Your task to perform on an android device: turn on improve location accuracy Image 0: 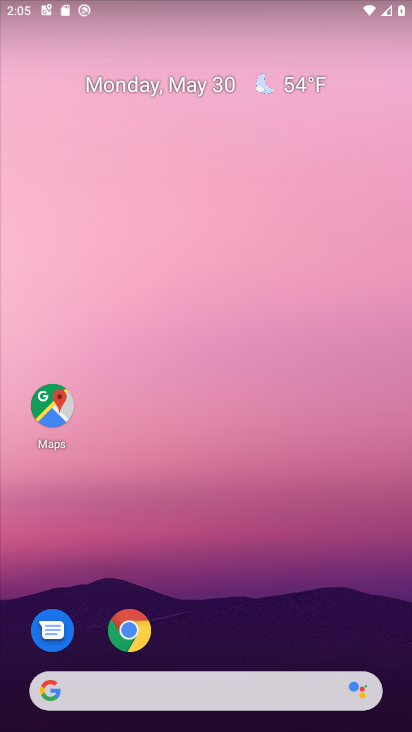
Step 0: press home button
Your task to perform on an android device: turn on improve location accuracy Image 1: 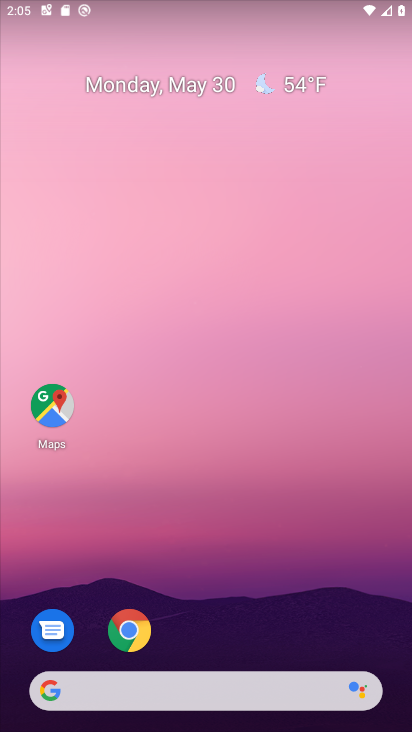
Step 1: drag from (155, 693) to (320, 106)
Your task to perform on an android device: turn on improve location accuracy Image 2: 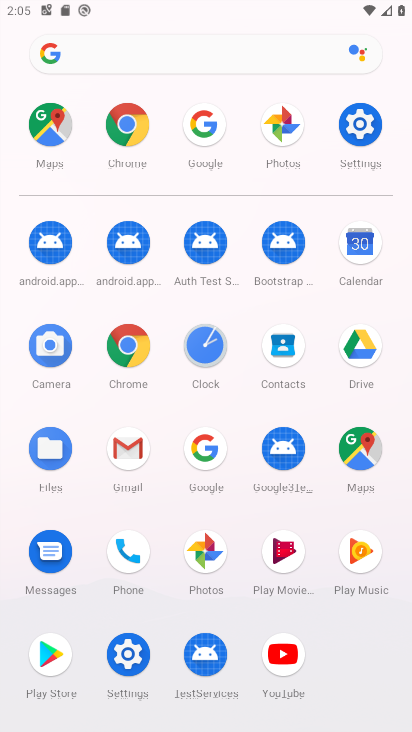
Step 2: click (361, 126)
Your task to perform on an android device: turn on improve location accuracy Image 3: 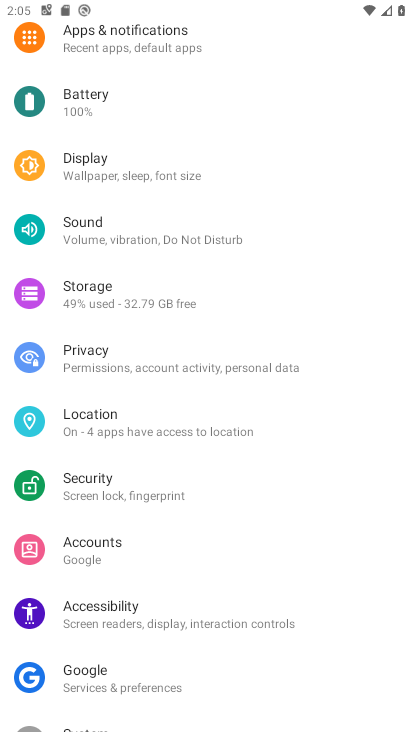
Step 3: click (87, 435)
Your task to perform on an android device: turn on improve location accuracy Image 4: 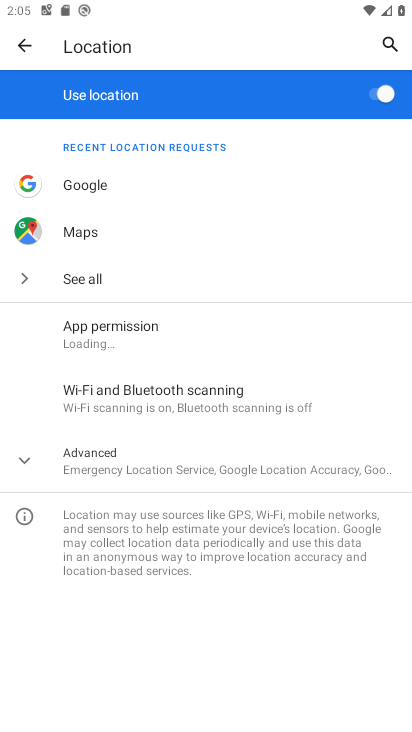
Step 4: click (110, 457)
Your task to perform on an android device: turn on improve location accuracy Image 5: 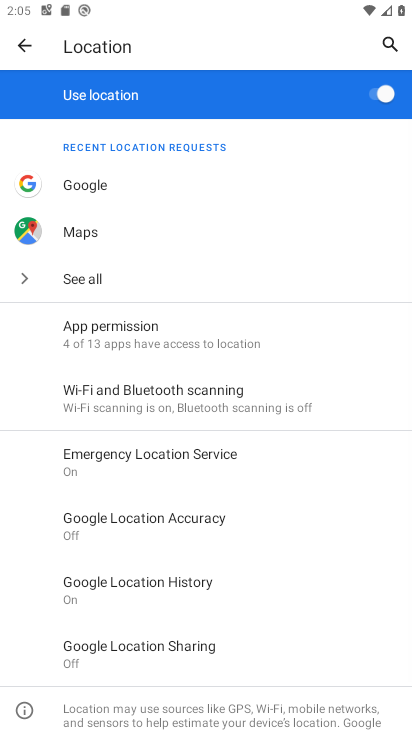
Step 5: click (154, 521)
Your task to perform on an android device: turn on improve location accuracy Image 6: 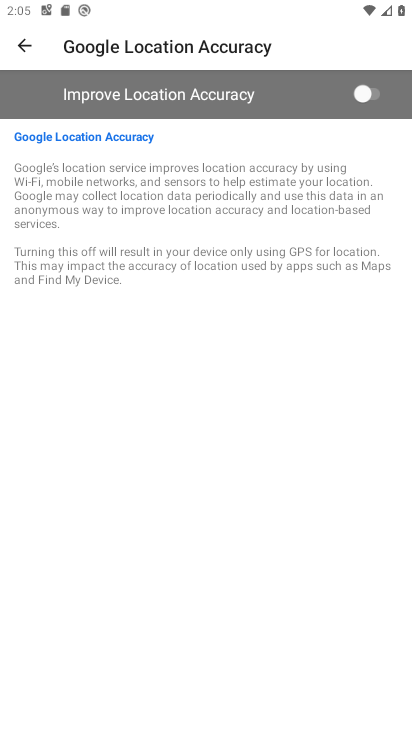
Step 6: click (378, 94)
Your task to perform on an android device: turn on improve location accuracy Image 7: 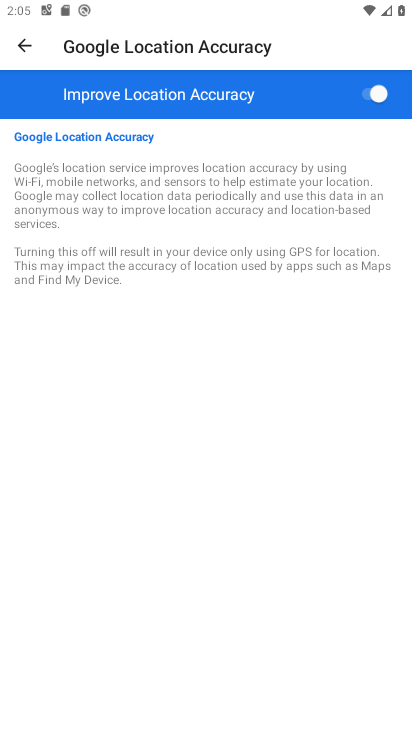
Step 7: task complete